Your task to perform on an android device: Search for flights from NYC to Tokyo Image 0: 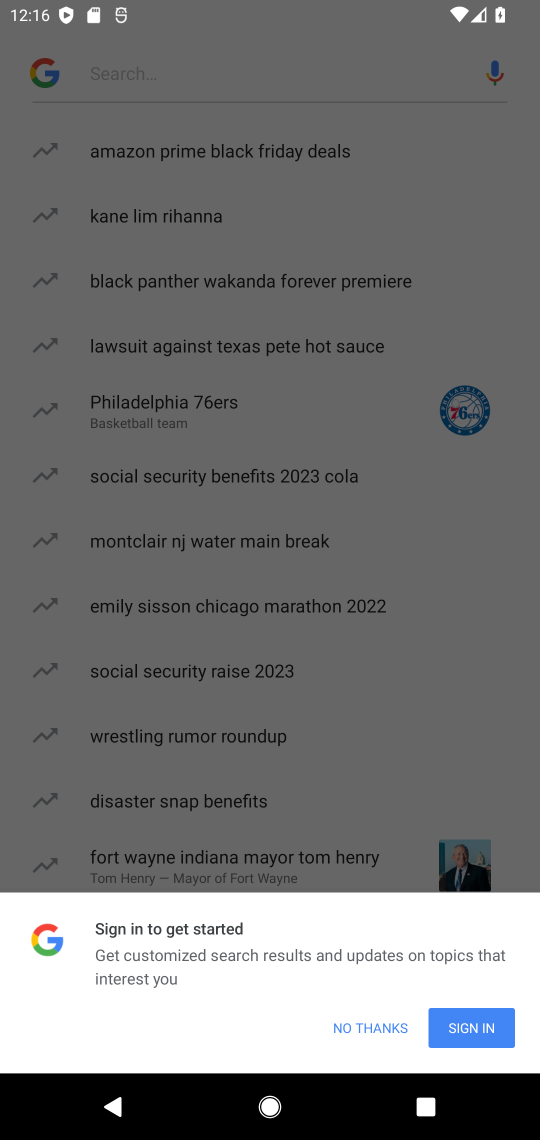
Step 0: press home button
Your task to perform on an android device: Search for flights from NYC to Tokyo Image 1: 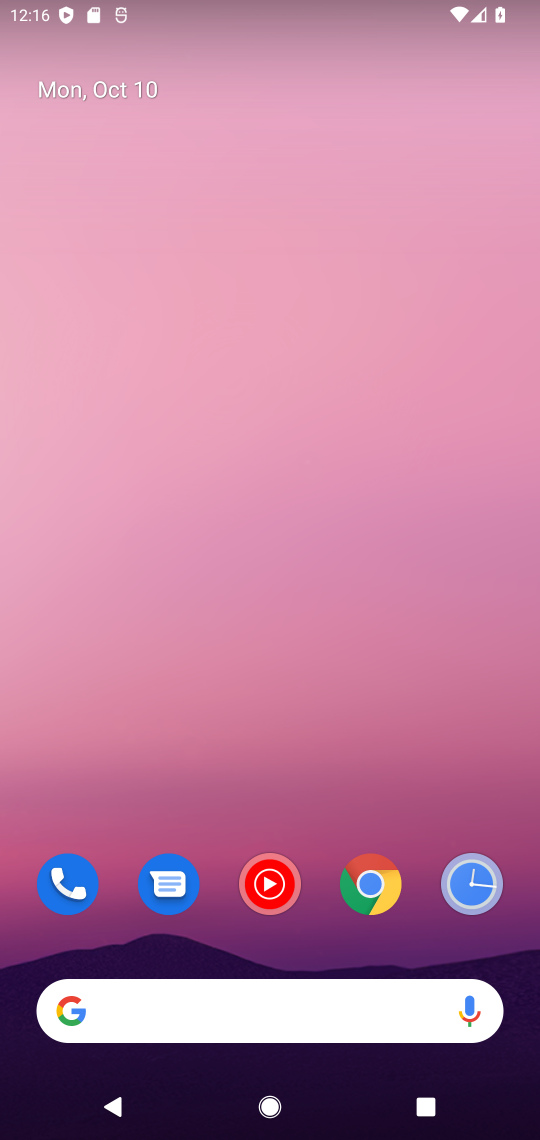
Step 1: click (363, 910)
Your task to perform on an android device: Search for flights from NYC to Tokyo Image 2: 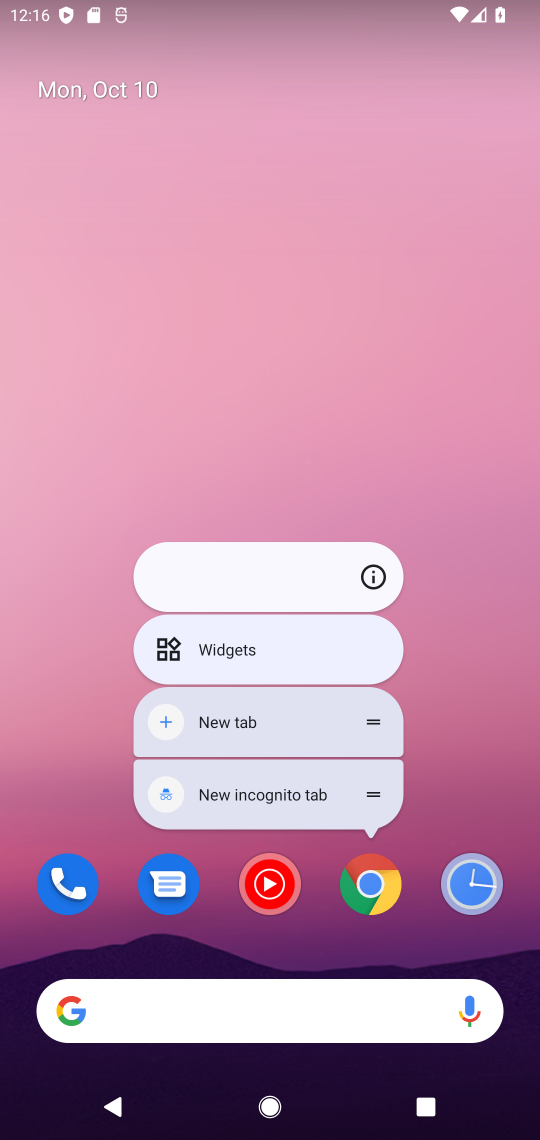
Step 2: click (377, 876)
Your task to perform on an android device: Search for flights from NYC to Tokyo Image 3: 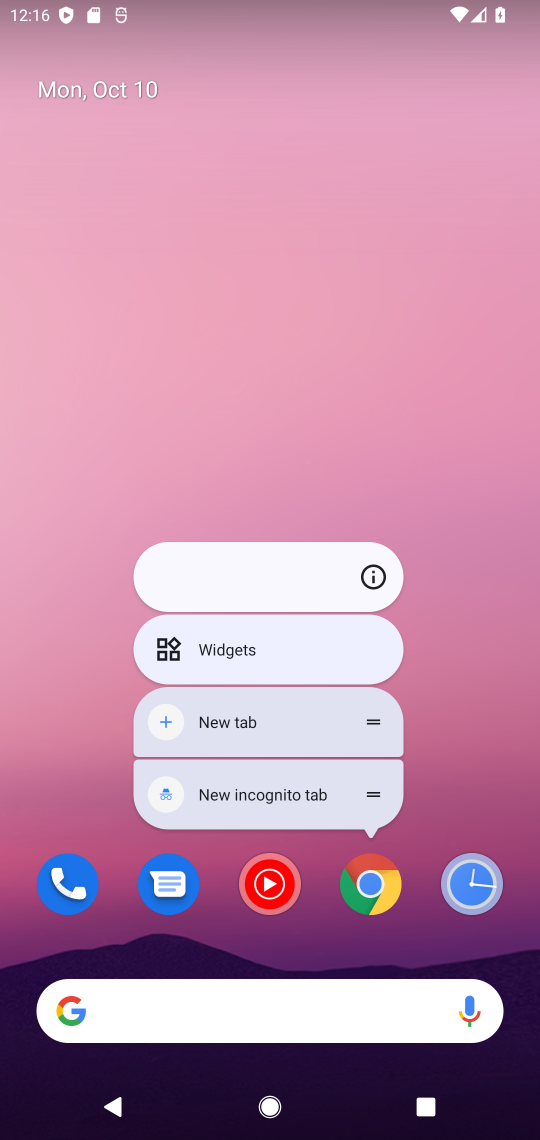
Step 3: click (379, 877)
Your task to perform on an android device: Search for flights from NYC to Tokyo Image 4: 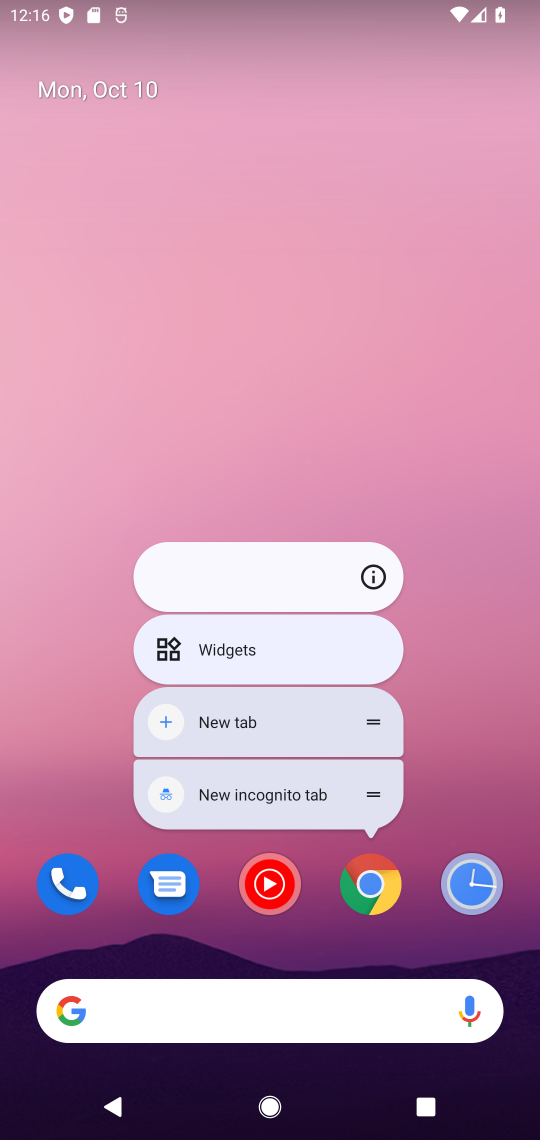
Step 4: click (369, 880)
Your task to perform on an android device: Search for flights from NYC to Tokyo Image 5: 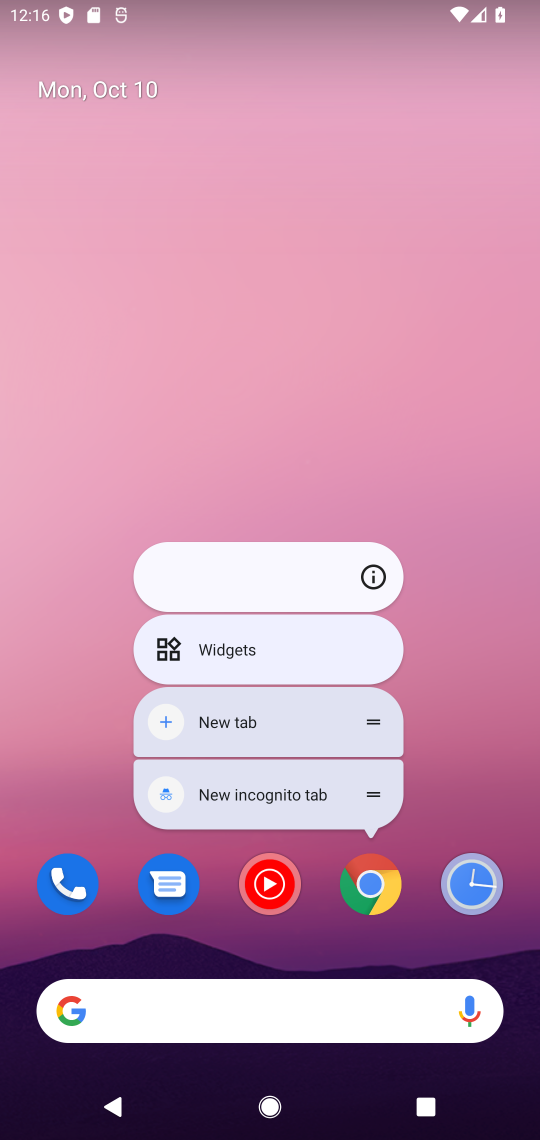
Step 5: click (383, 885)
Your task to perform on an android device: Search for flights from NYC to Tokyo Image 6: 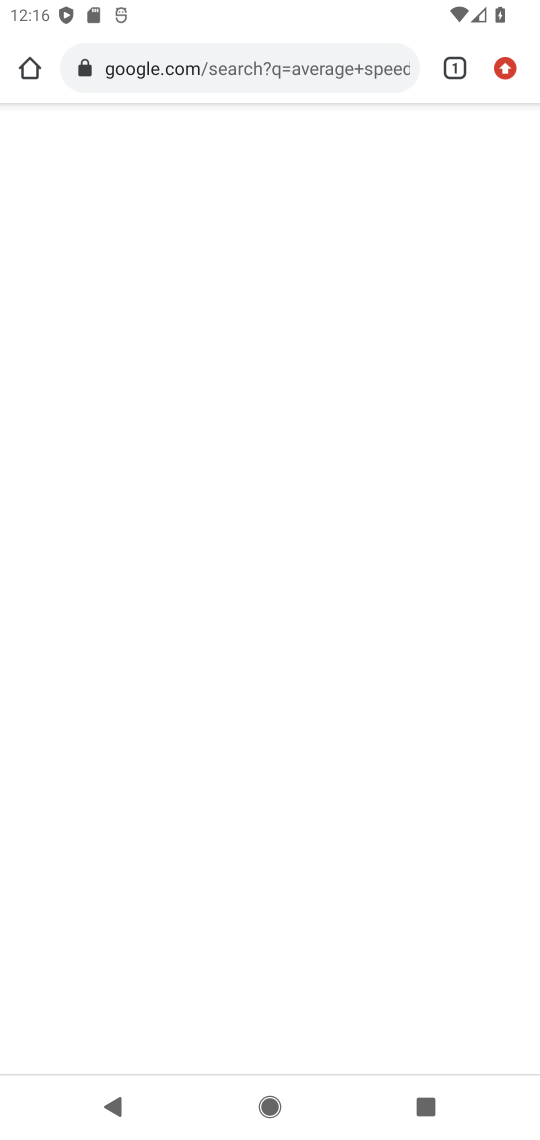
Step 6: click (286, 70)
Your task to perform on an android device: Search for flights from NYC to Tokyo Image 7: 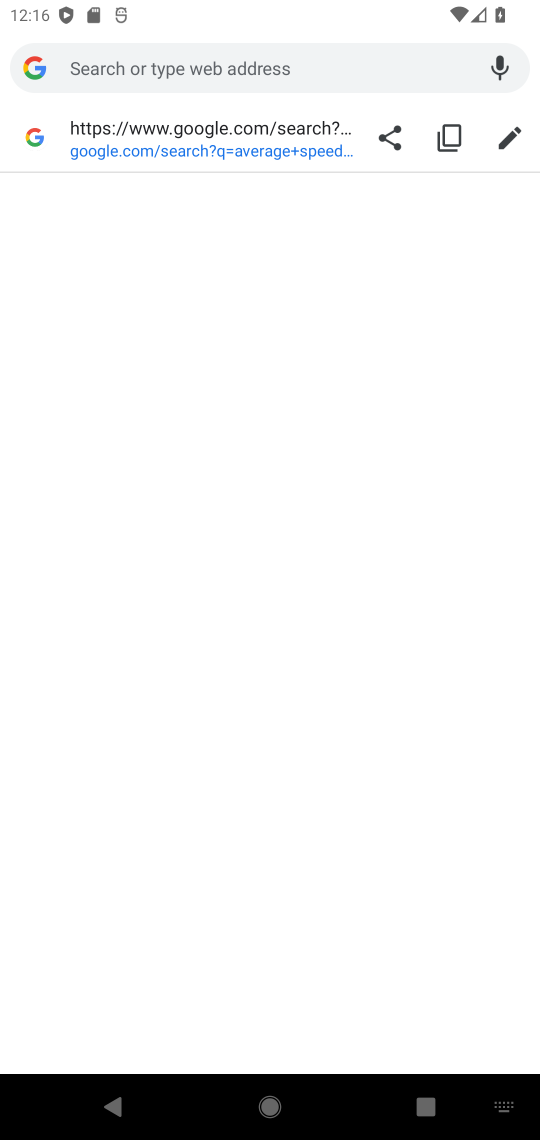
Step 7: type "flights from NYC to Tokyo"
Your task to perform on an android device: Search for flights from NYC to Tokyo Image 8: 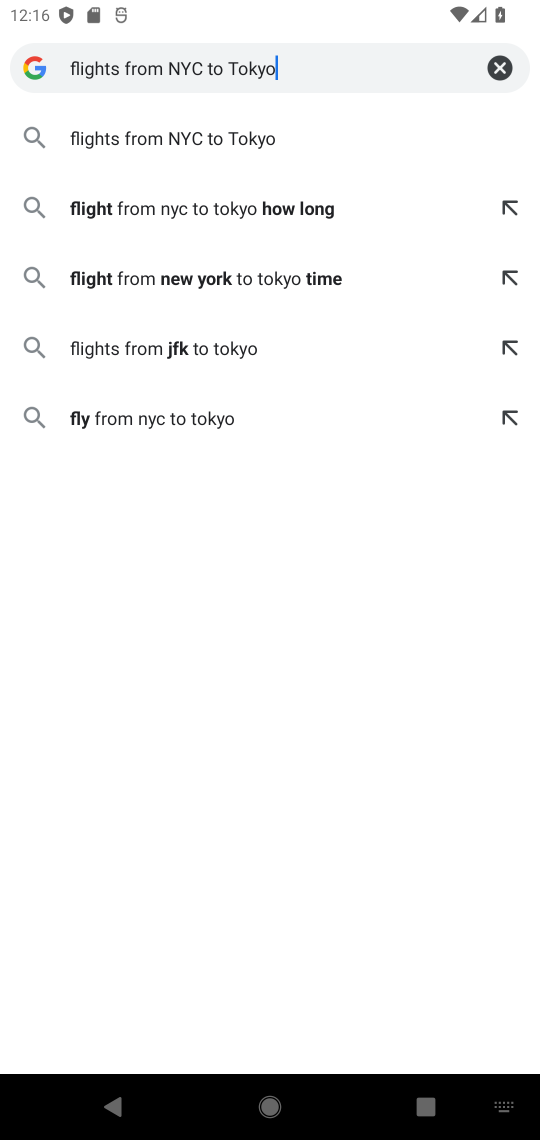
Step 8: press enter
Your task to perform on an android device: Search for flights from NYC to Tokyo Image 9: 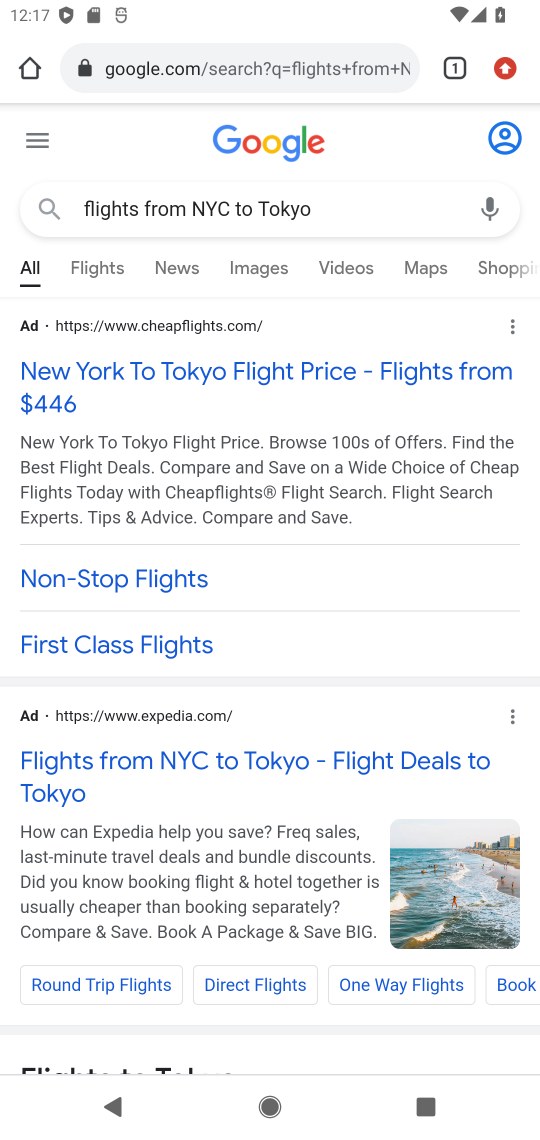
Step 9: drag from (319, 463) to (295, 226)
Your task to perform on an android device: Search for flights from NYC to Tokyo Image 10: 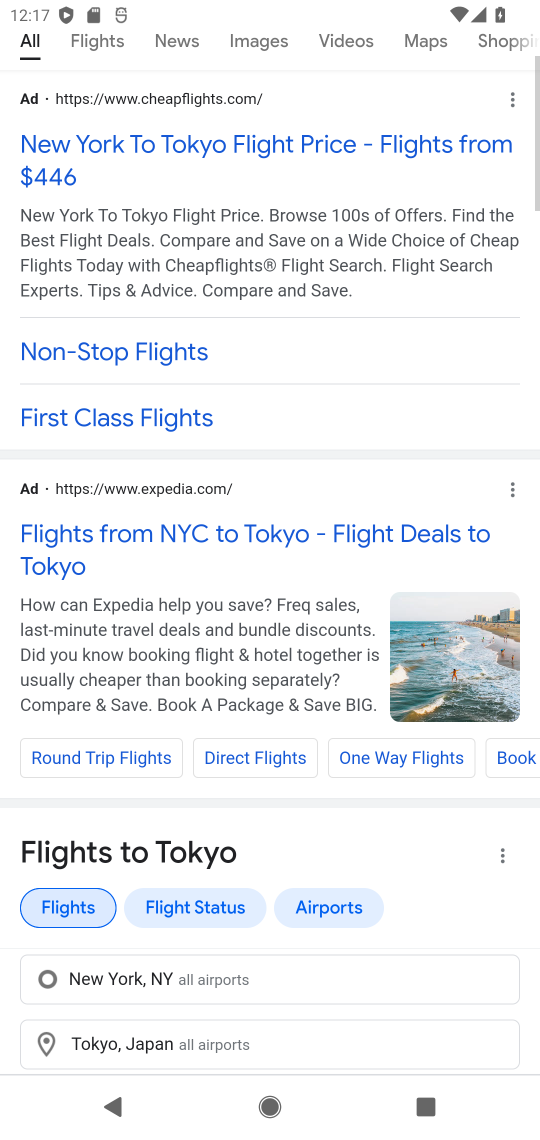
Step 10: drag from (296, 809) to (264, 301)
Your task to perform on an android device: Search for flights from NYC to Tokyo Image 11: 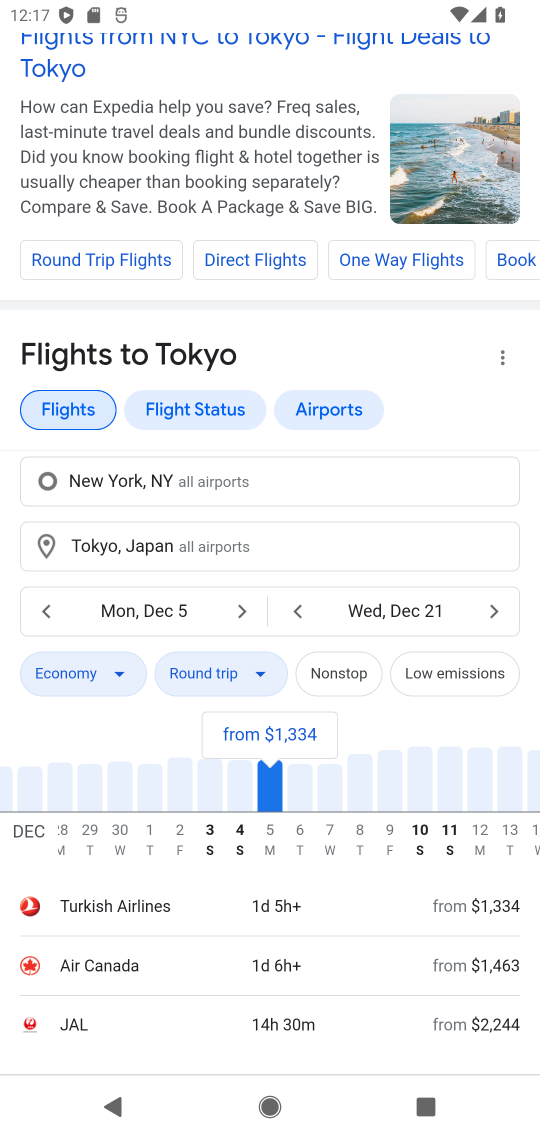
Step 11: drag from (261, 898) to (235, 379)
Your task to perform on an android device: Search for flights from NYC to Tokyo Image 12: 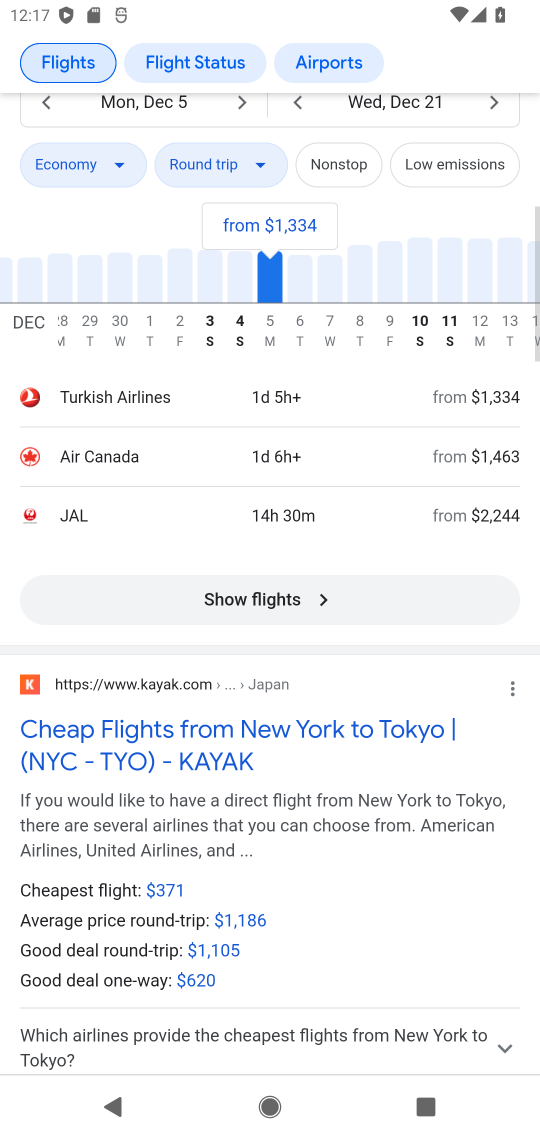
Step 12: click (299, 592)
Your task to perform on an android device: Search for flights from NYC to Tokyo Image 13: 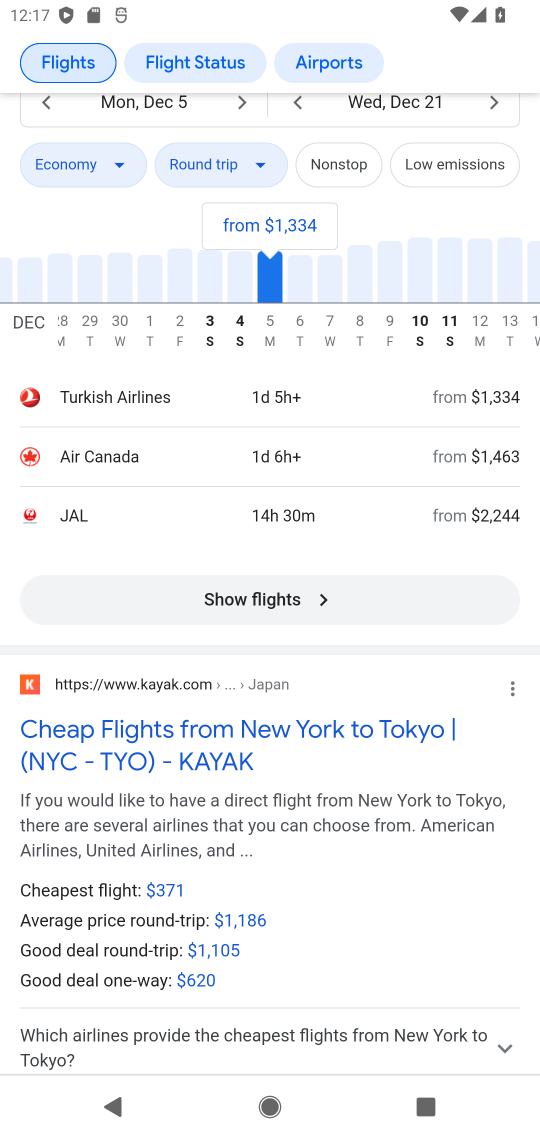
Step 13: click (301, 603)
Your task to perform on an android device: Search for flights from NYC to Tokyo Image 14: 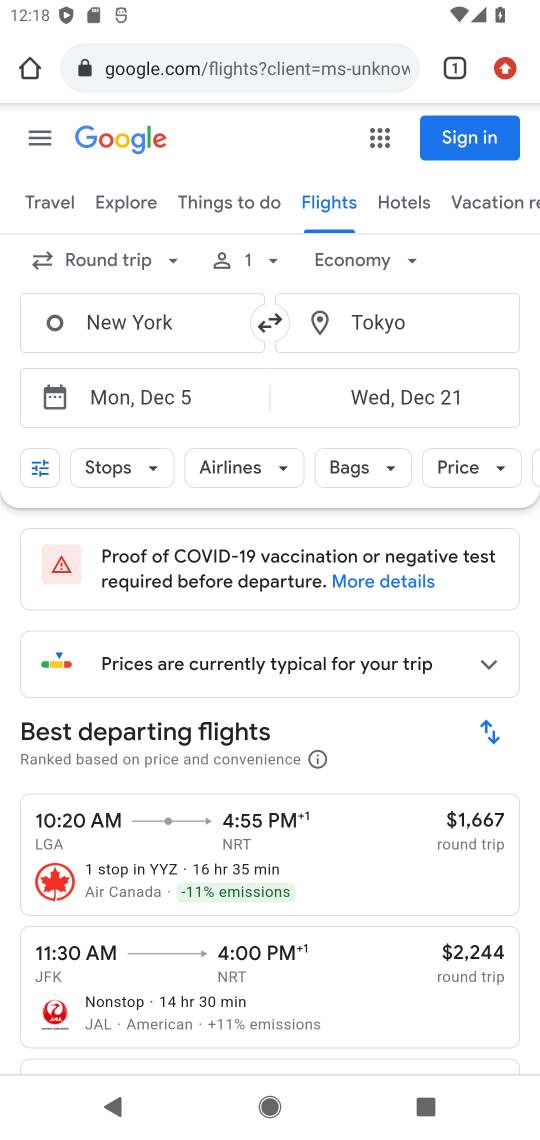
Step 14: task complete